Your task to perform on an android device: turn pop-ups on in chrome Image 0: 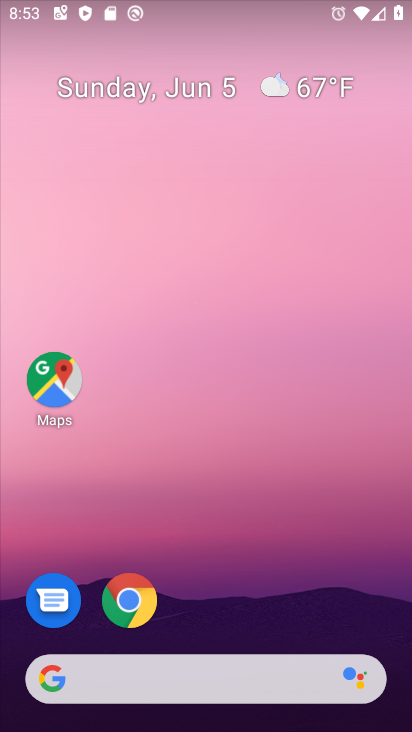
Step 0: drag from (370, 648) to (355, 78)
Your task to perform on an android device: turn pop-ups on in chrome Image 1: 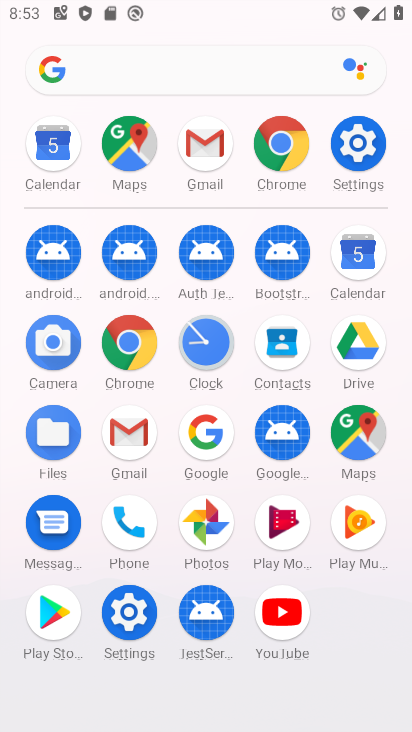
Step 1: click (145, 344)
Your task to perform on an android device: turn pop-ups on in chrome Image 2: 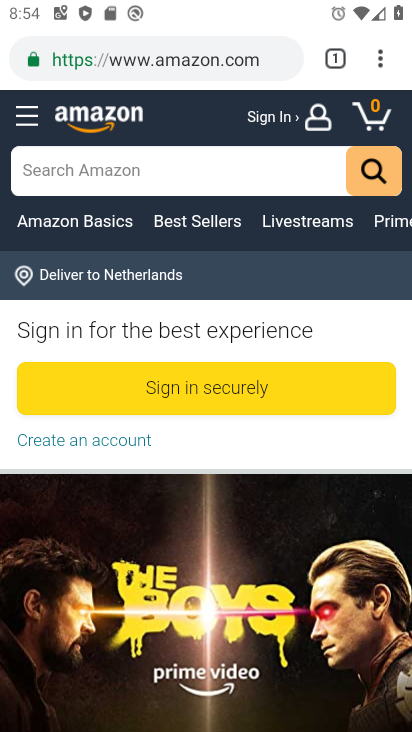
Step 2: press back button
Your task to perform on an android device: turn pop-ups on in chrome Image 3: 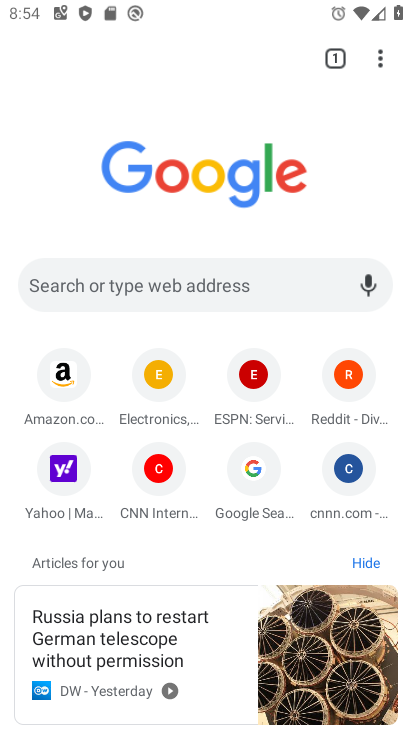
Step 3: click (383, 52)
Your task to perform on an android device: turn pop-ups on in chrome Image 4: 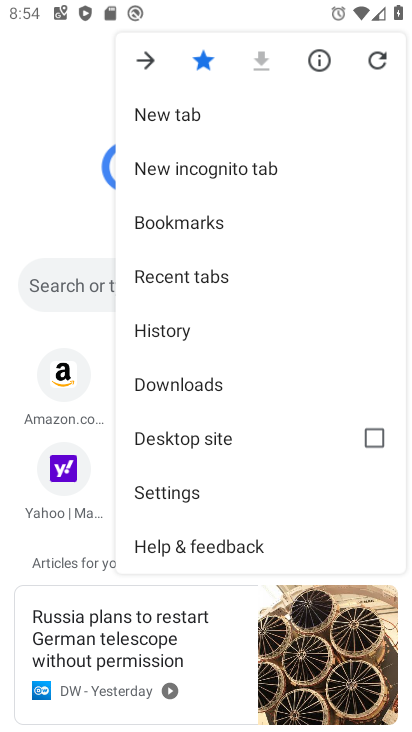
Step 4: click (214, 477)
Your task to perform on an android device: turn pop-ups on in chrome Image 5: 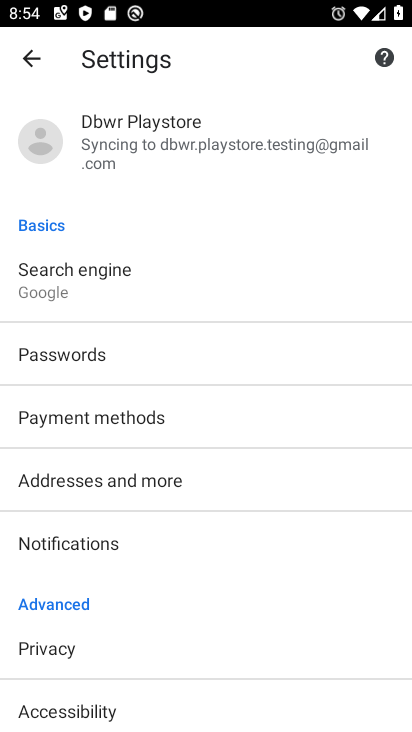
Step 5: drag from (96, 682) to (143, 360)
Your task to perform on an android device: turn pop-ups on in chrome Image 6: 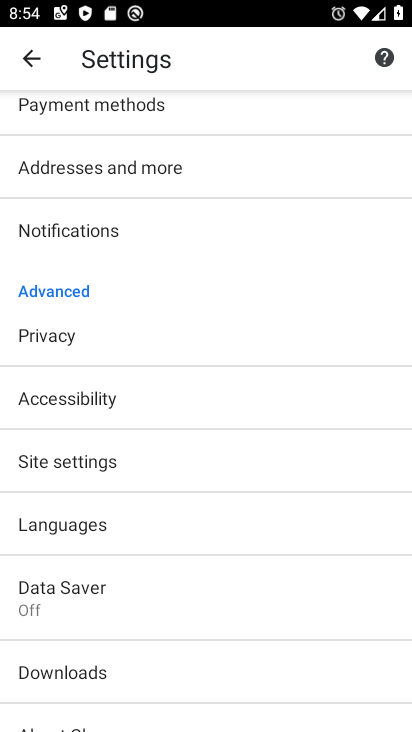
Step 6: click (114, 451)
Your task to perform on an android device: turn pop-ups on in chrome Image 7: 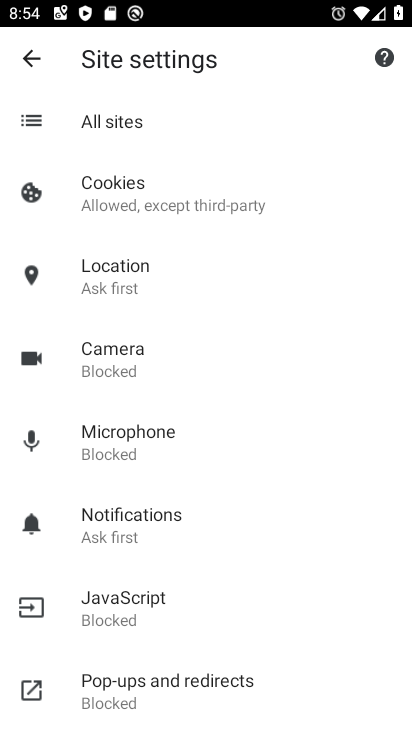
Step 7: click (189, 700)
Your task to perform on an android device: turn pop-ups on in chrome Image 8: 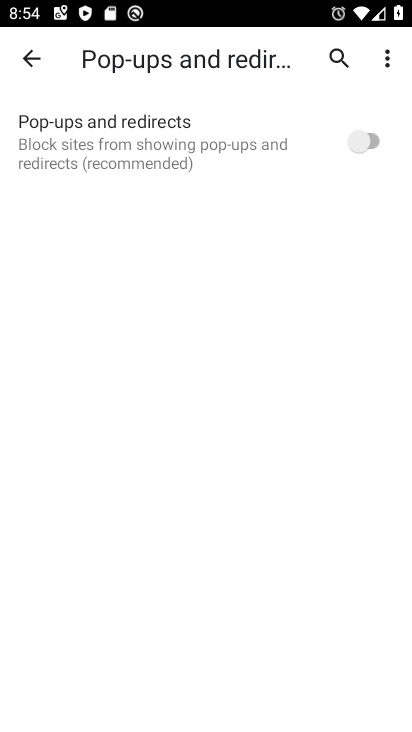
Step 8: click (359, 160)
Your task to perform on an android device: turn pop-ups on in chrome Image 9: 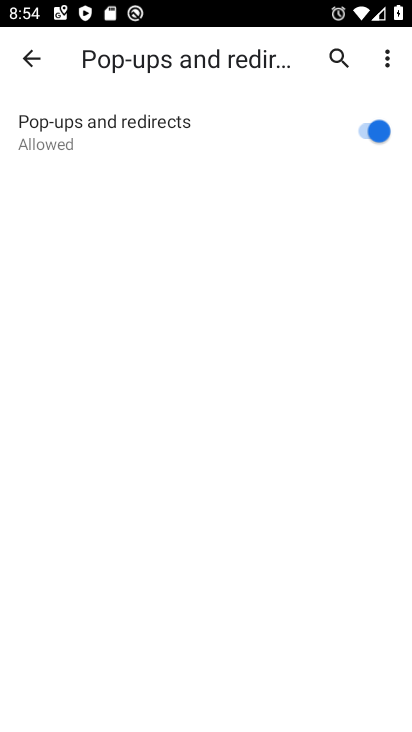
Step 9: task complete